Your task to perform on an android device: visit the assistant section in the google photos Image 0: 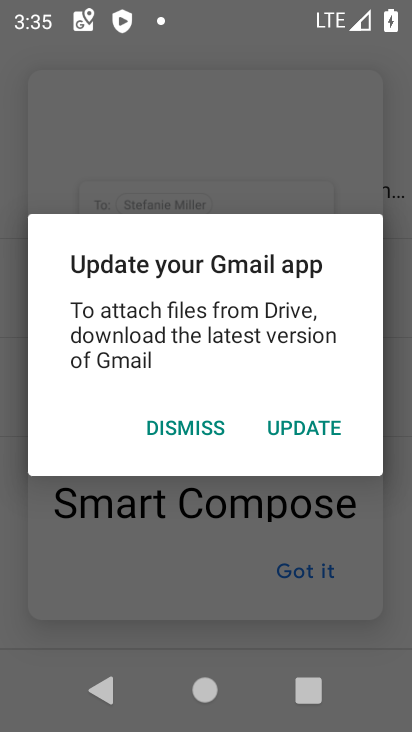
Step 0: press home button
Your task to perform on an android device: visit the assistant section in the google photos Image 1: 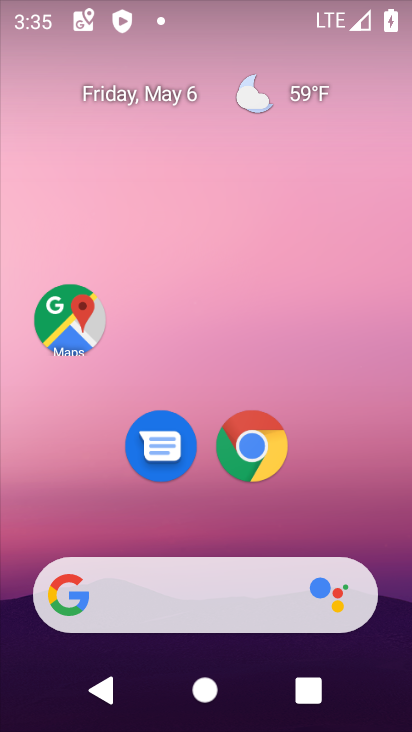
Step 1: drag from (307, 515) to (301, 173)
Your task to perform on an android device: visit the assistant section in the google photos Image 2: 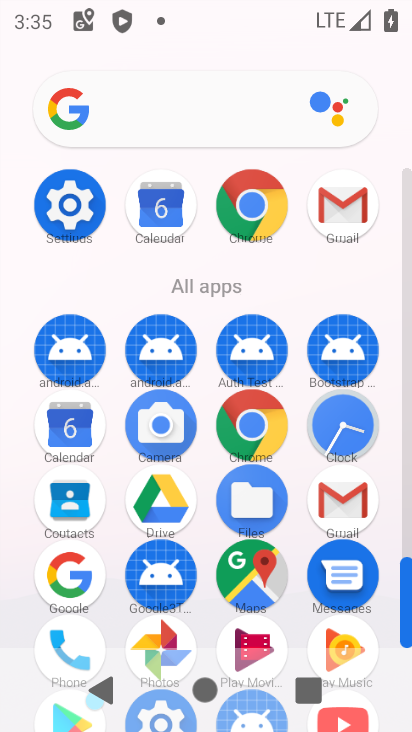
Step 2: click (165, 632)
Your task to perform on an android device: visit the assistant section in the google photos Image 3: 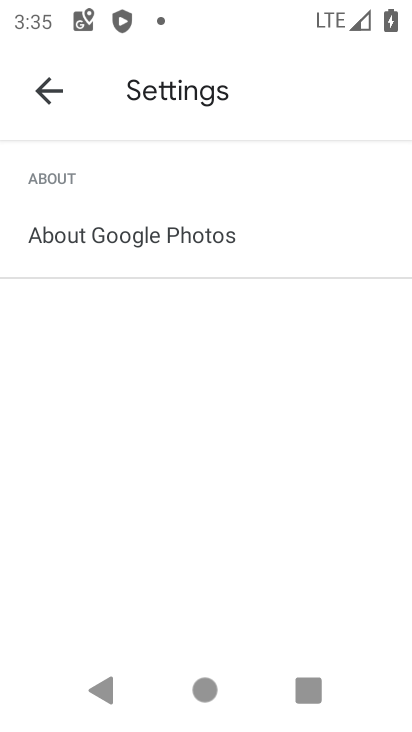
Step 3: press back button
Your task to perform on an android device: visit the assistant section in the google photos Image 4: 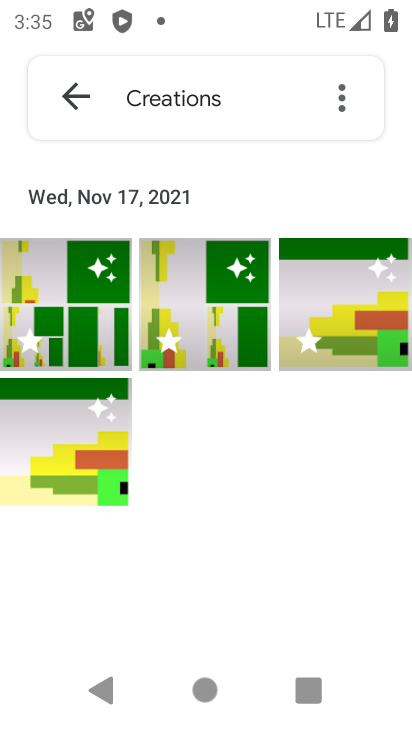
Step 4: press back button
Your task to perform on an android device: visit the assistant section in the google photos Image 5: 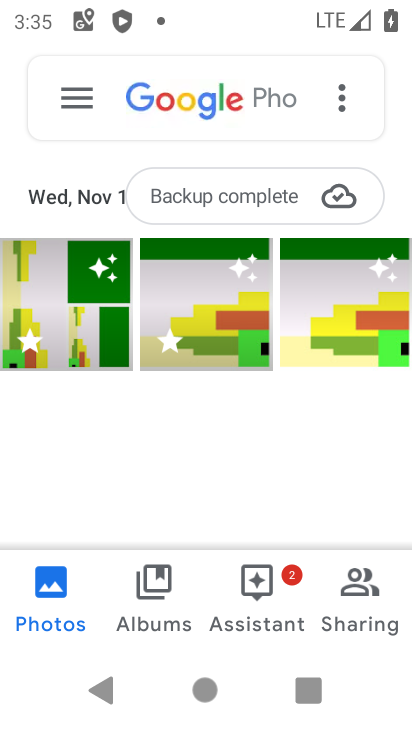
Step 5: click (260, 579)
Your task to perform on an android device: visit the assistant section in the google photos Image 6: 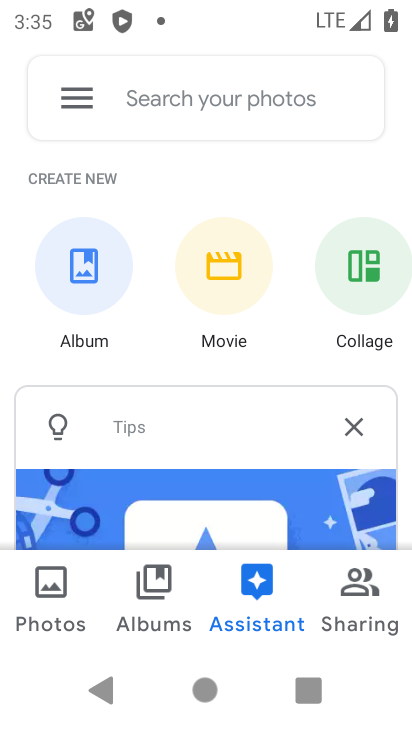
Step 6: task complete